Your task to perform on an android device: Open Google Chrome and open the bookmarks view Image 0: 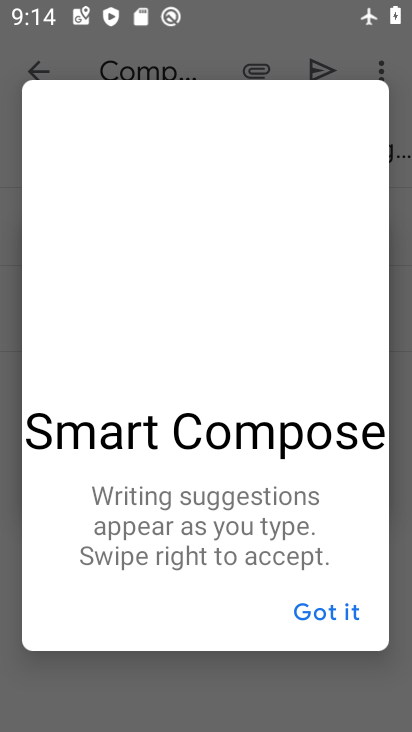
Step 0: press home button
Your task to perform on an android device: Open Google Chrome and open the bookmarks view Image 1: 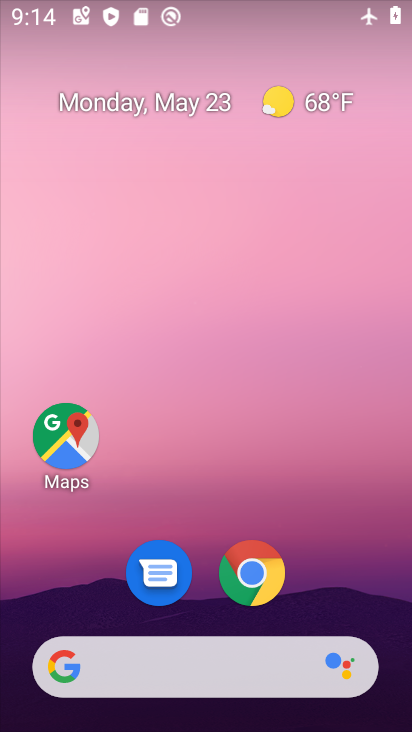
Step 1: drag from (285, 691) to (355, 168)
Your task to perform on an android device: Open Google Chrome and open the bookmarks view Image 2: 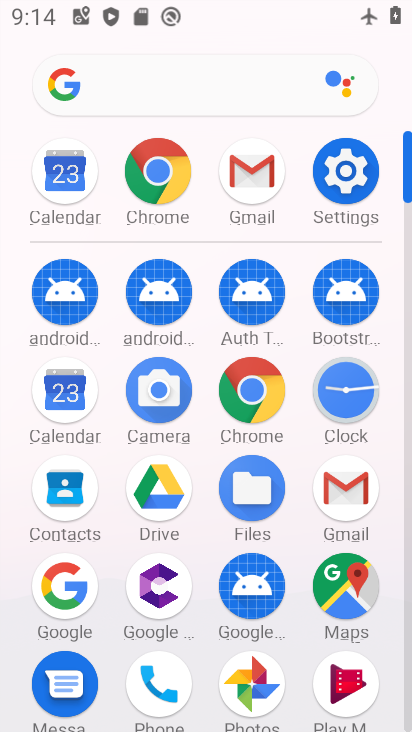
Step 2: click (250, 399)
Your task to perform on an android device: Open Google Chrome and open the bookmarks view Image 3: 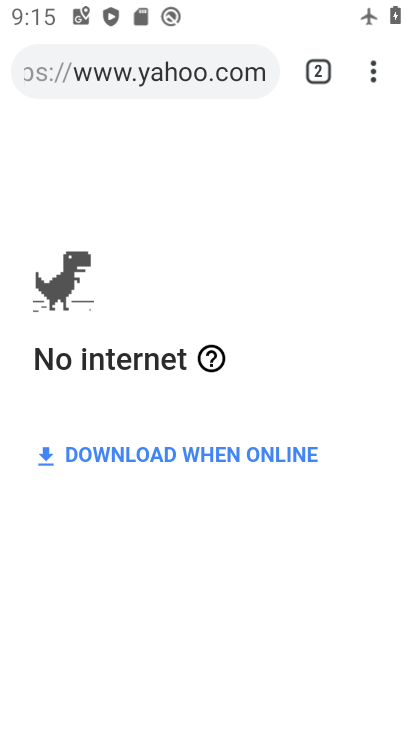
Step 3: click (381, 77)
Your task to perform on an android device: Open Google Chrome and open the bookmarks view Image 4: 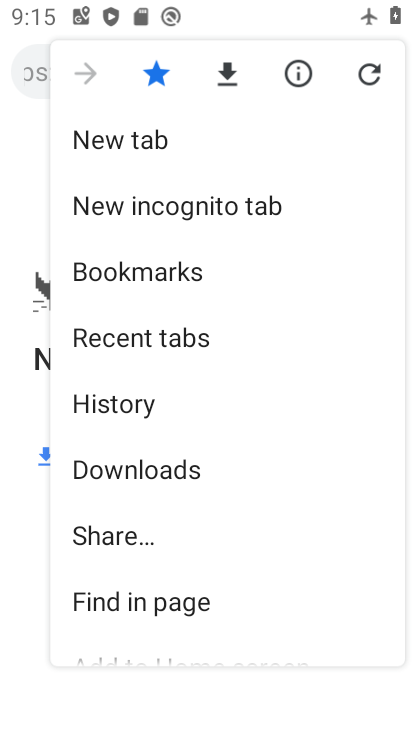
Step 4: drag from (214, 512) to (259, 213)
Your task to perform on an android device: Open Google Chrome and open the bookmarks view Image 5: 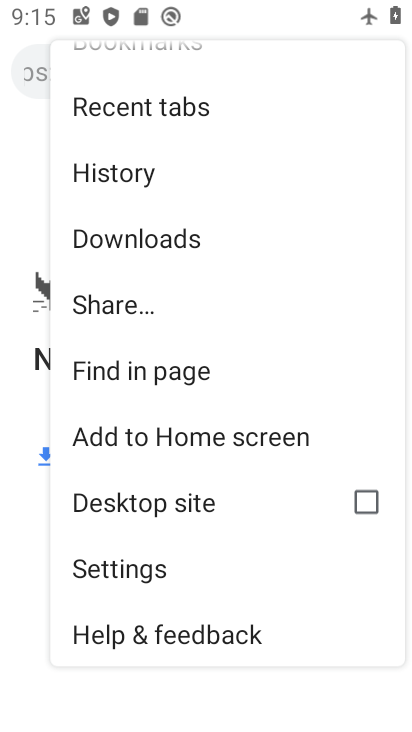
Step 5: drag from (189, 506) to (241, 576)
Your task to perform on an android device: Open Google Chrome and open the bookmarks view Image 6: 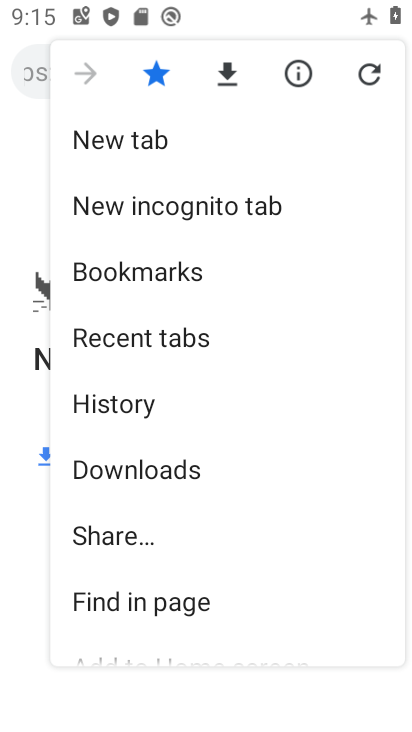
Step 6: click (188, 264)
Your task to perform on an android device: Open Google Chrome and open the bookmarks view Image 7: 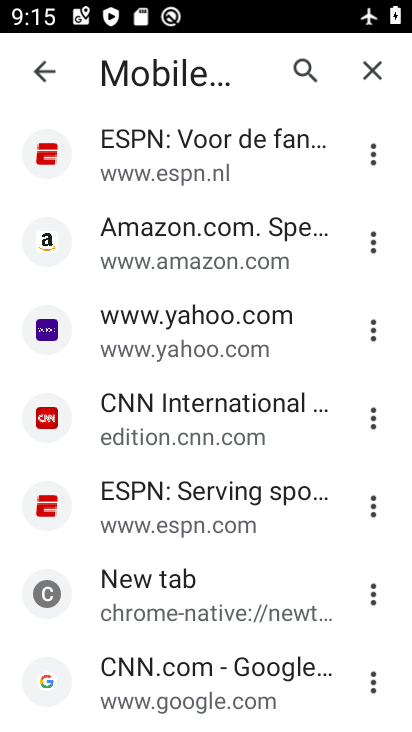
Step 7: task complete